Your task to perform on an android device: toggle improve location accuracy Image 0: 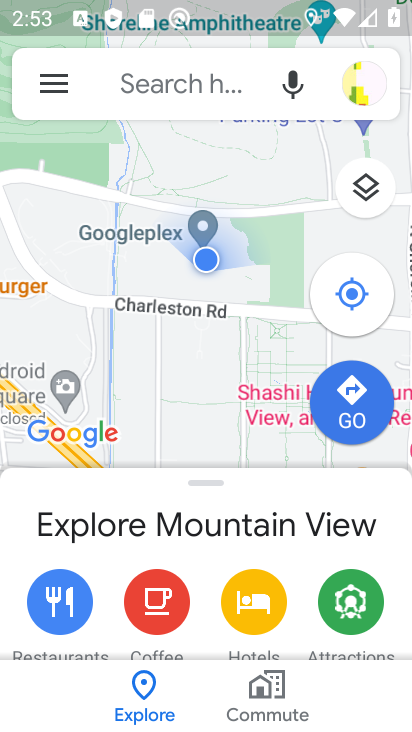
Step 0: press home button
Your task to perform on an android device: toggle improve location accuracy Image 1: 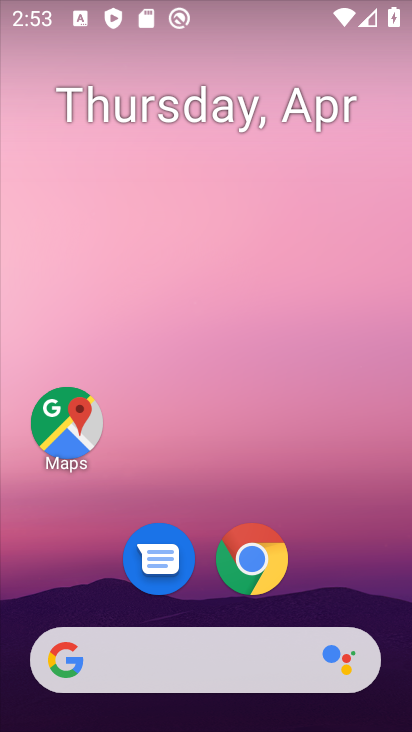
Step 1: drag from (204, 499) to (257, 8)
Your task to perform on an android device: toggle improve location accuracy Image 2: 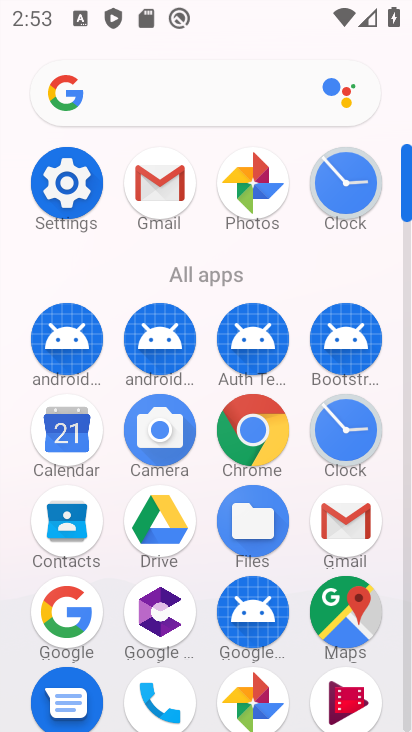
Step 2: click (65, 183)
Your task to perform on an android device: toggle improve location accuracy Image 3: 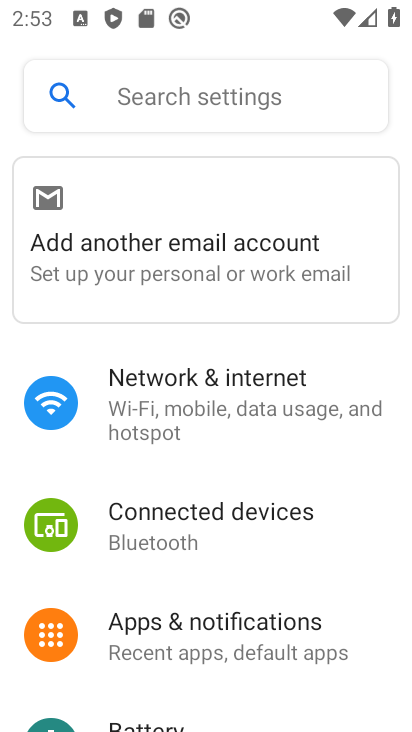
Step 3: drag from (226, 579) to (212, 23)
Your task to perform on an android device: toggle improve location accuracy Image 4: 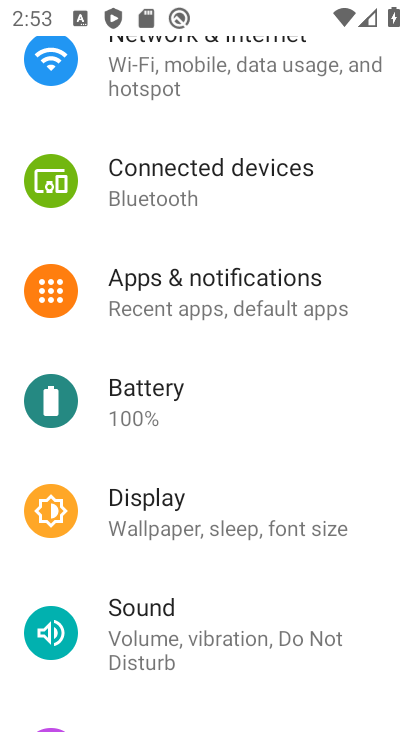
Step 4: drag from (182, 526) to (173, 88)
Your task to perform on an android device: toggle improve location accuracy Image 5: 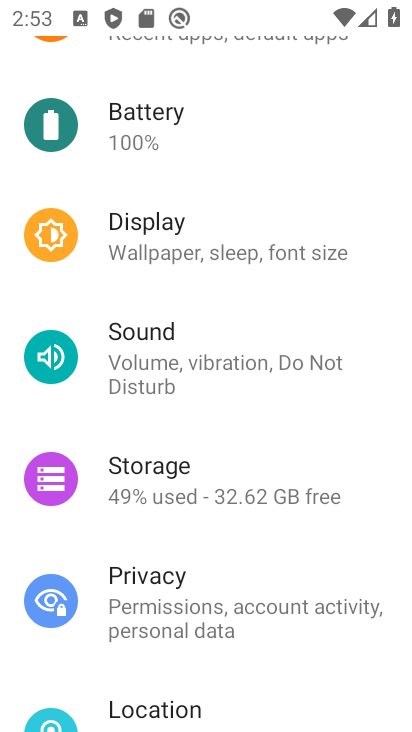
Step 5: drag from (213, 636) to (245, 334)
Your task to perform on an android device: toggle improve location accuracy Image 6: 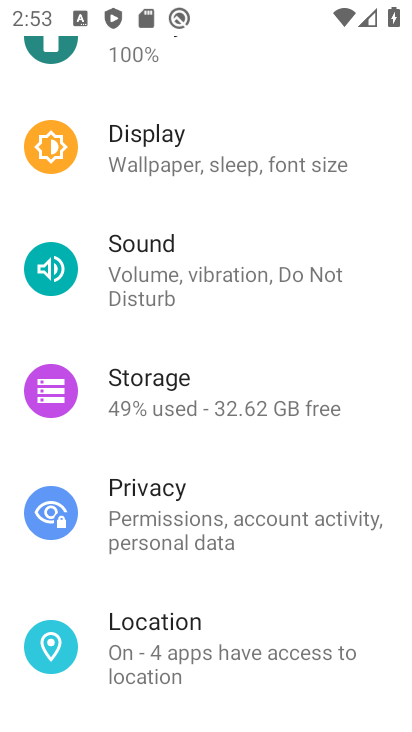
Step 6: click (178, 628)
Your task to perform on an android device: toggle improve location accuracy Image 7: 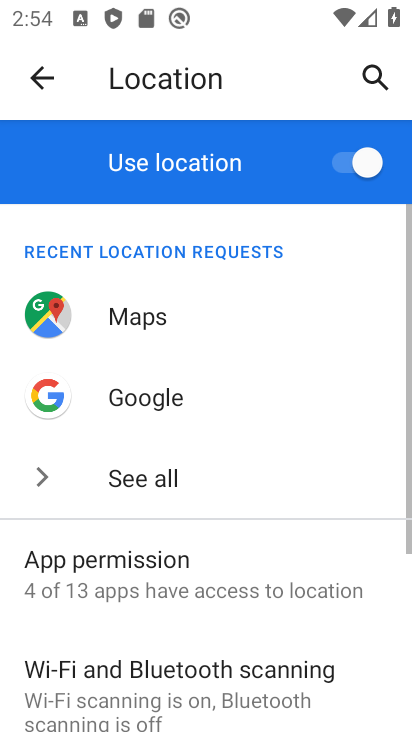
Step 7: drag from (296, 614) to (306, 174)
Your task to perform on an android device: toggle improve location accuracy Image 8: 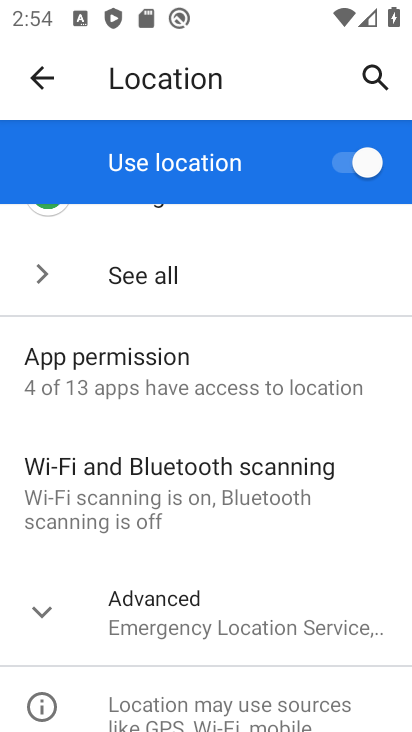
Step 8: drag from (249, 613) to (256, 270)
Your task to perform on an android device: toggle improve location accuracy Image 9: 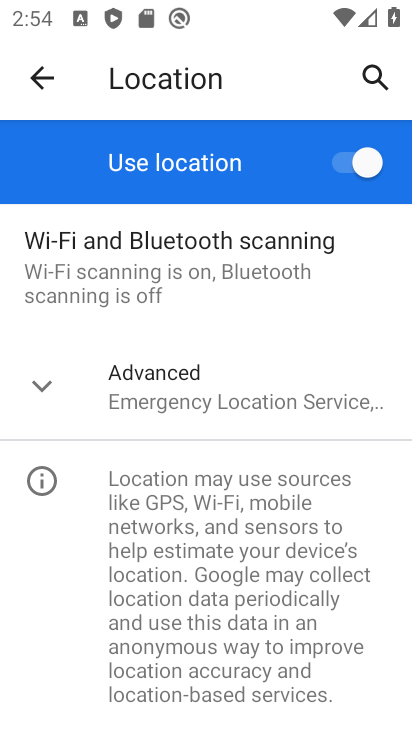
Step 9: click (225, 378)
Your task to perform on an android device: toggle improve location accuracy Image 10: 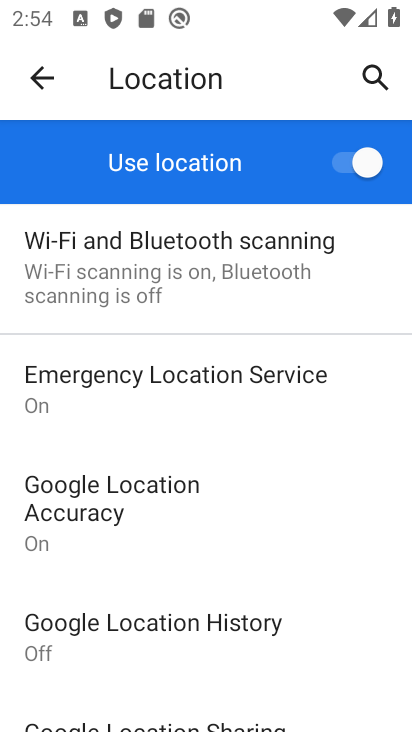
Step 10: click (175, 502)
Your task to perform on an android device: toggle improve location accuracy Image 11: 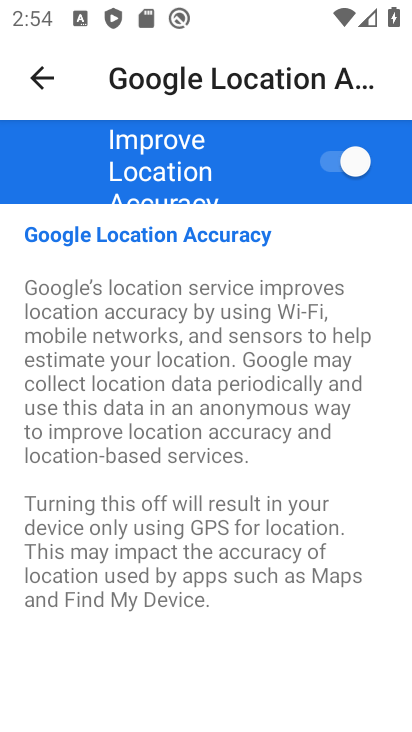
Step 11: click (345, 158)
Your task to perform on an android device: toggle improve location accuracy Image 12: 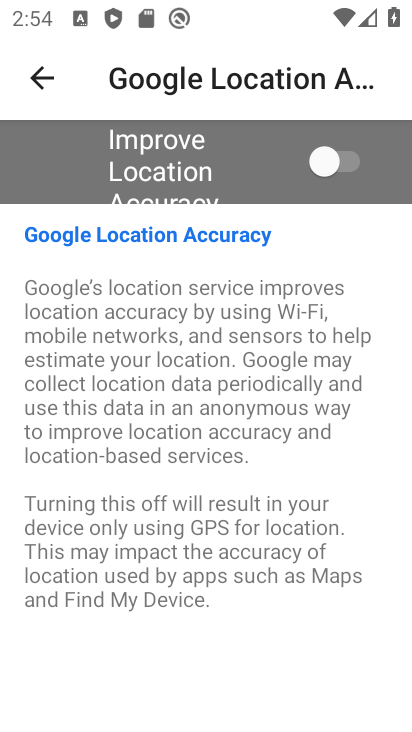
Step 12: task complete